Your task to perform on an android device: check battery use Image 0: 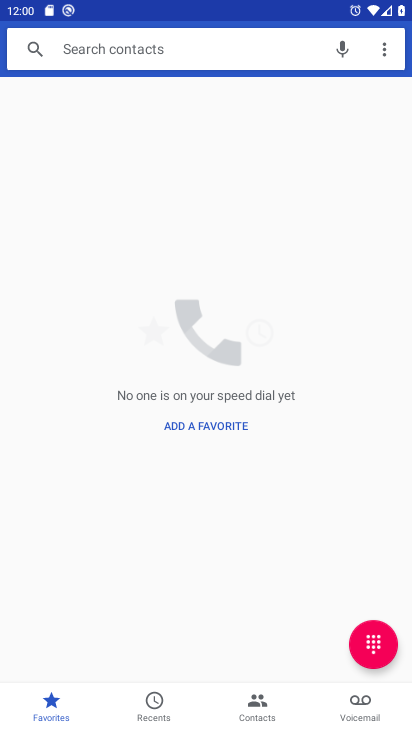
Step 0: press home button
Your task to perform on an android device: check battery use Image 1: 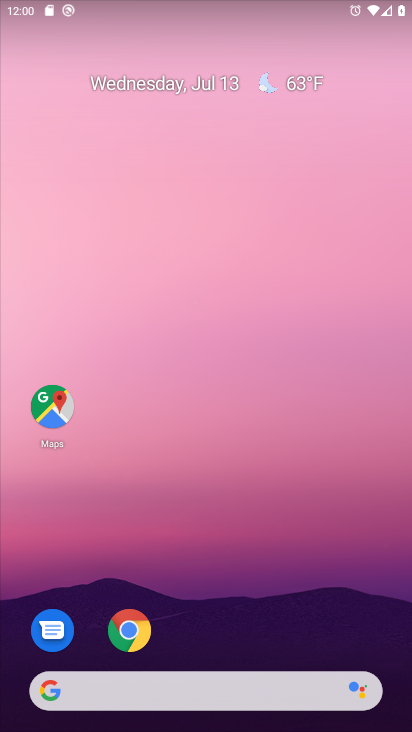
Step 1: drag from (193, 686) to (149, 83)
Your task to perform on an android device: check battery use Image 2: 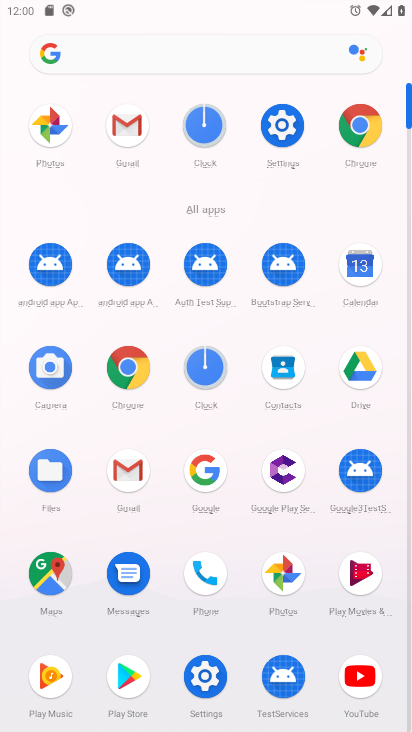
Step 2: click (281, 124)
Your task to perform on an android device: check battery use Image 3: 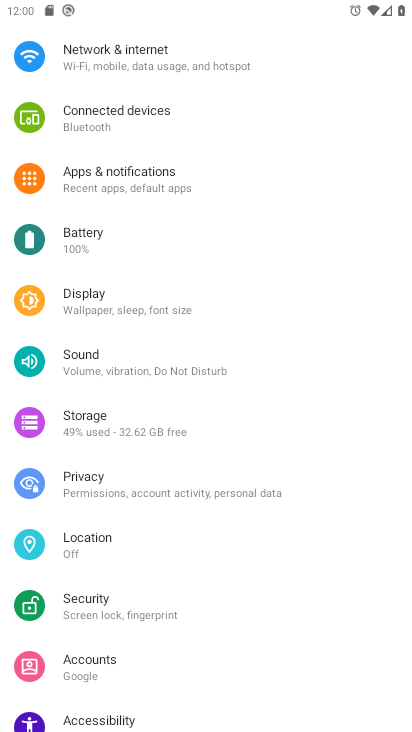
Step 3: click (98, 242)
Your task to perform on an android device: check battery use Image 4: 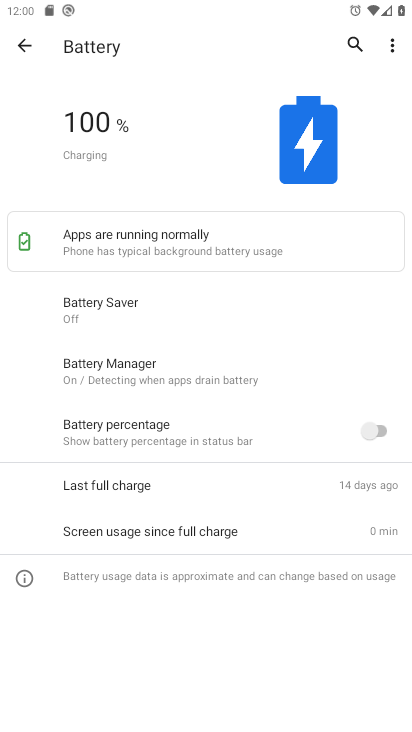
Step 4: click (388, 43)
Your task to perform on an android device: check battery use Image 5: 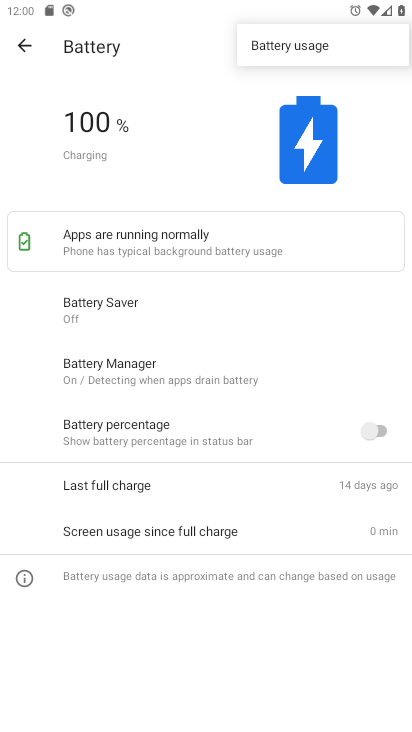
Step 5: click (332, 44)
Your task to perform on an android device: check battery use Image 6: 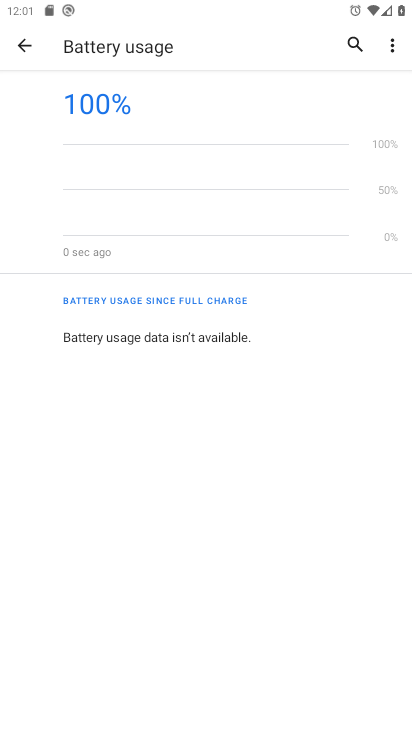
Step 6: task complete